Your task to perform on an android device: change the clock display to analog Image 0: 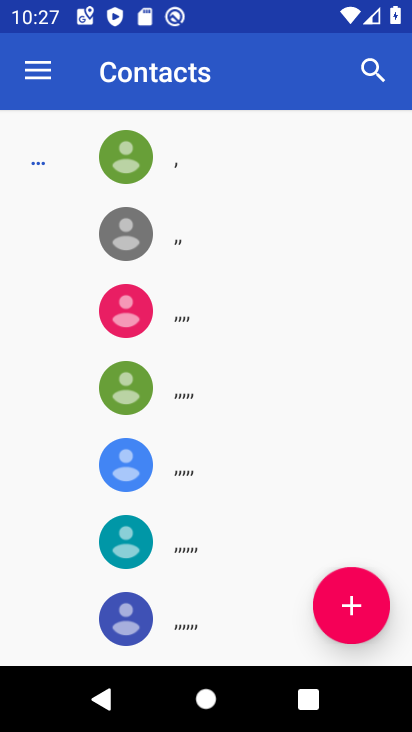
Step 0: press home button
Your task to perform on an android device: change the clock display to analog Image 1: 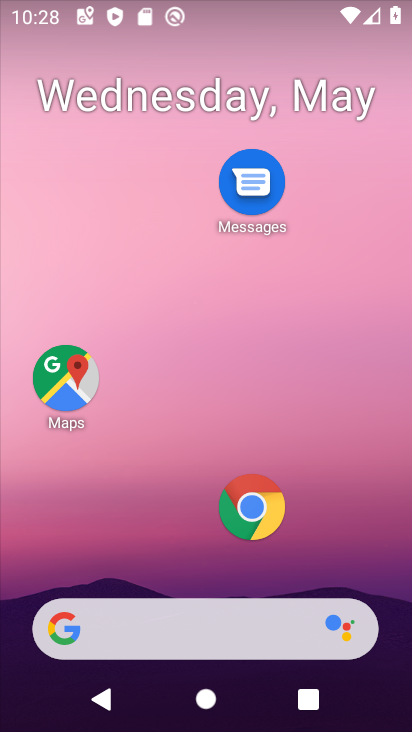
Step 1: drag from (198, 583) to (239, 15)
Your task to perform on an android device: change the clock display to analog Image 2: 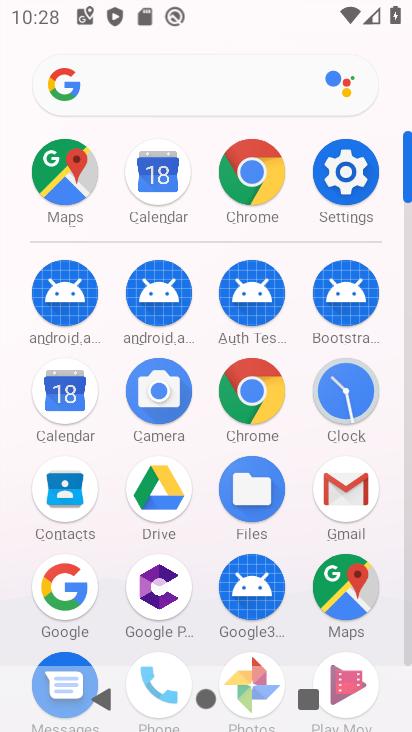
Step 2: click (344, 384)
Your task to perform on an android device: change the clock display to analog Image 3: 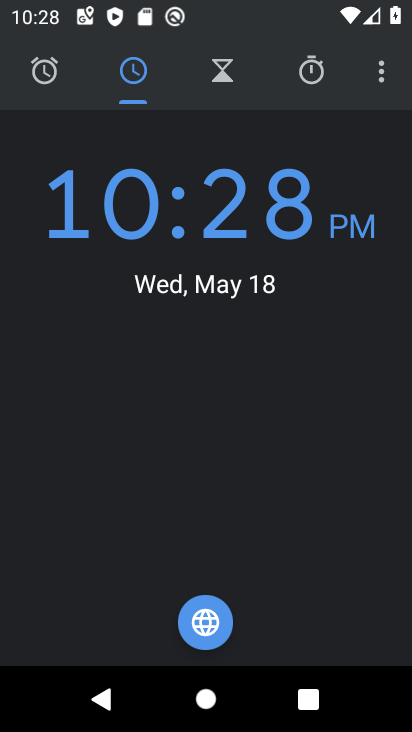
Step 3: click (379, 60)
Your task to perform on an android device: change the clock display to analog Image 4: 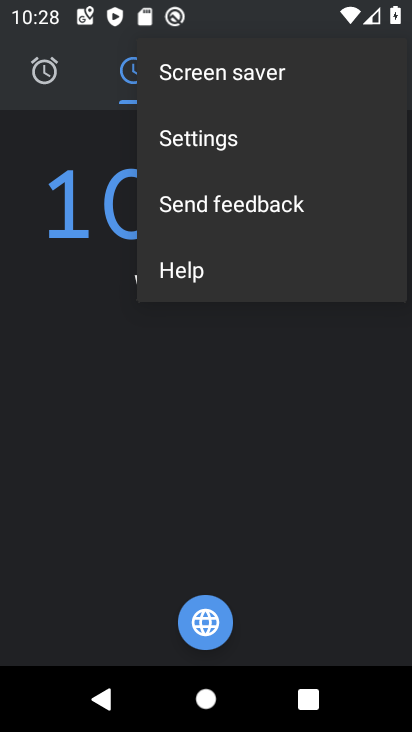
Step 4: click (243, 132)
Your task to perform on an android device: change the clock display to analog Image 5: 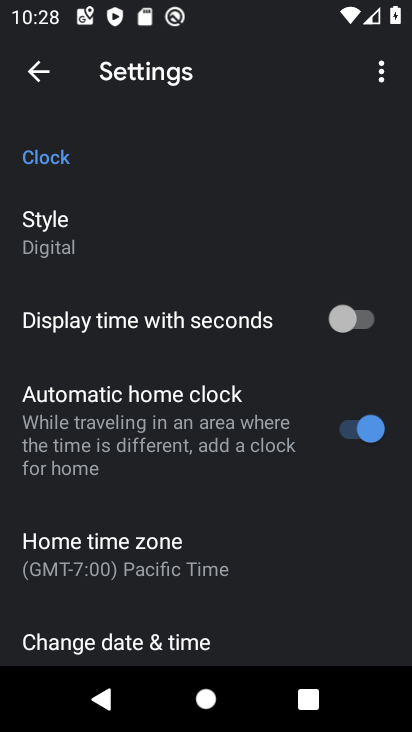
Step 5: drag from (244, 600) to (258, 164)
Your task to perform on an android device: change the clock display to analog Image 6: 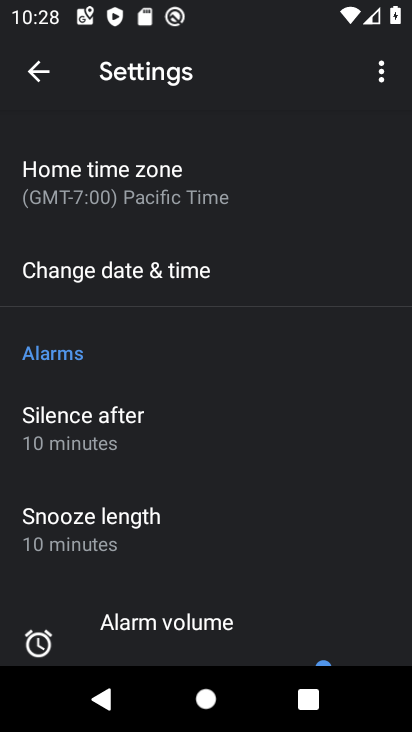
Step 6: drag from (166, 164) to (195, 525)
Your task to perform on an android device: change the clock display to analog Image 7: 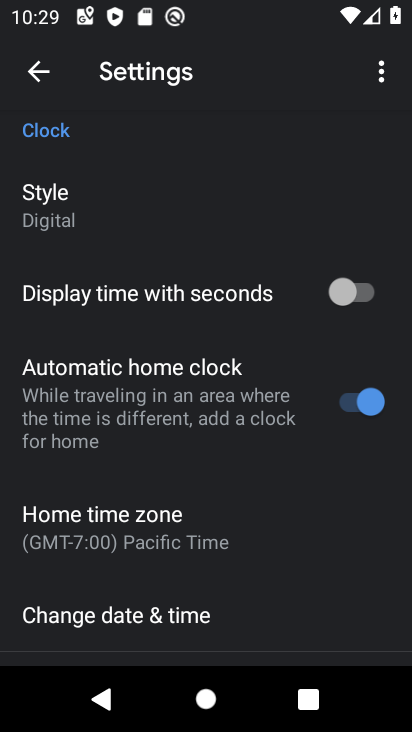
Step 7: click (84, 209)
Your task to perform on an android device: change the clock display to analog Image 8: 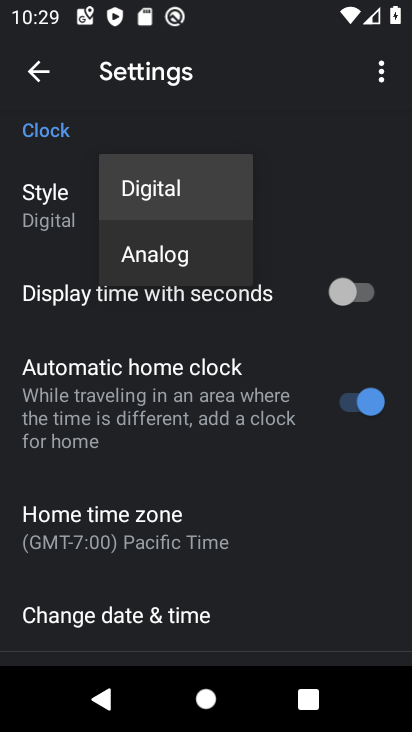
Step 8: click (199, 253)
Your task to perform on an android device: change the clock display to analog Image 9: 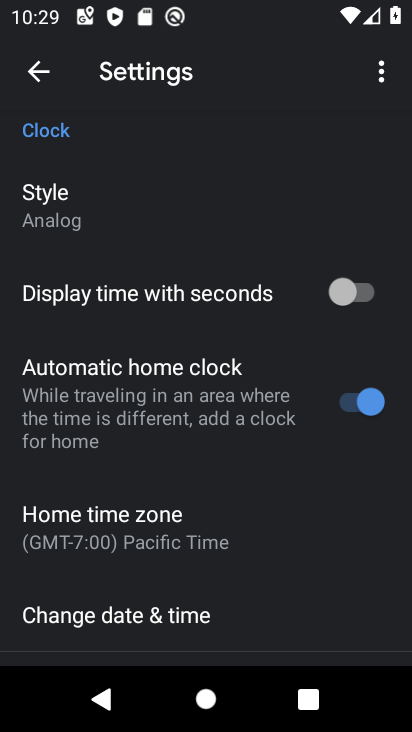
Step 9: task complete